Your task to perform on an android device: turn off location Image 0: 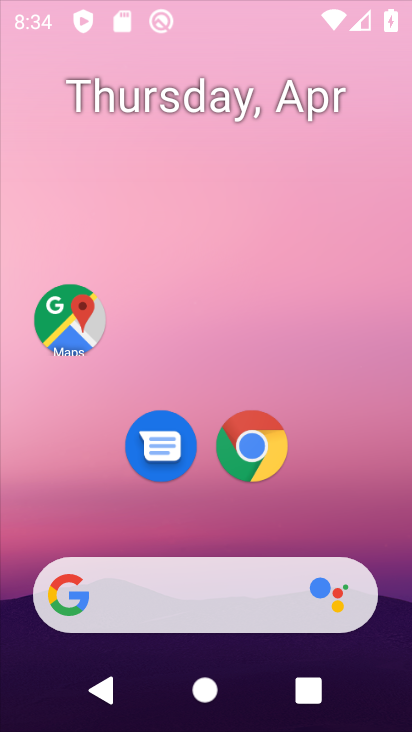
Step 0: press home button
Your task to perform on an android device: turn off location Image 1: 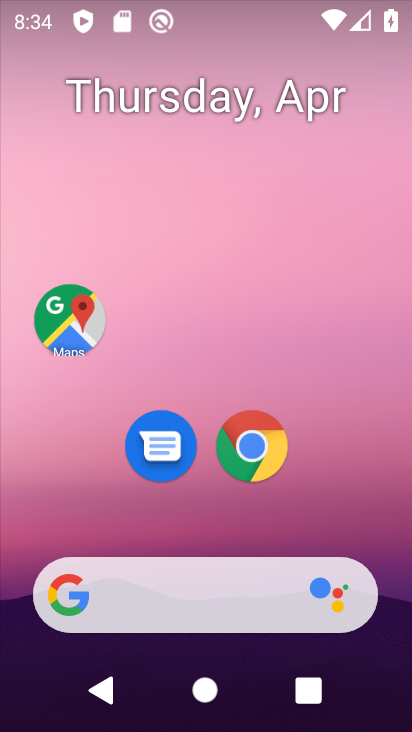
Step 1: drag from (357, 509) to (338, 124)
Your task to perform on an android device: turn off location Image 2: 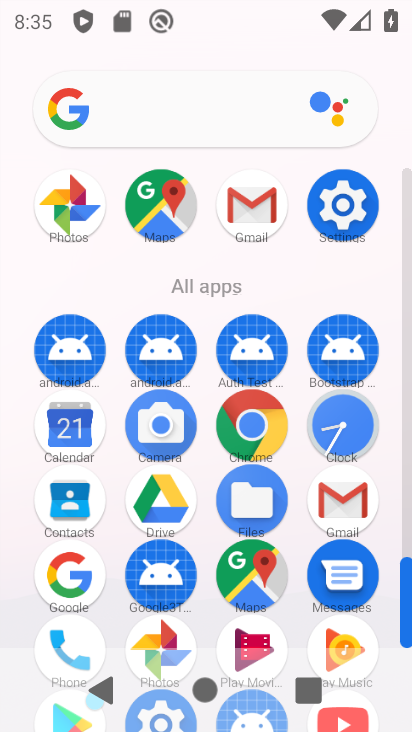
Step 2: click (348, 206)
Your task to perform on an android device: turn off location Image 3: 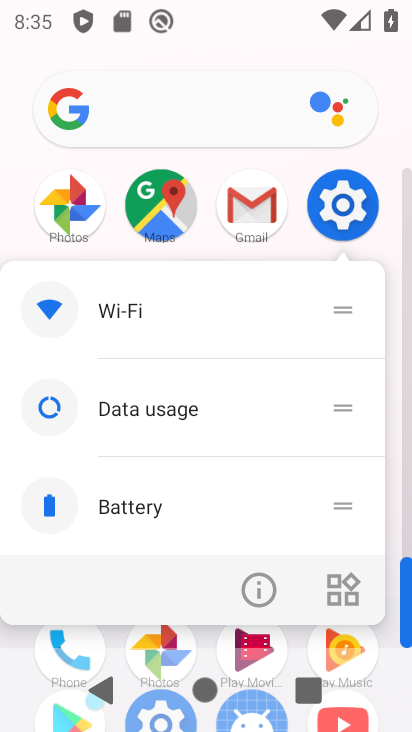
Step 3: click (355, 195)
Your task to perform on an android device: turn off location Image 4: 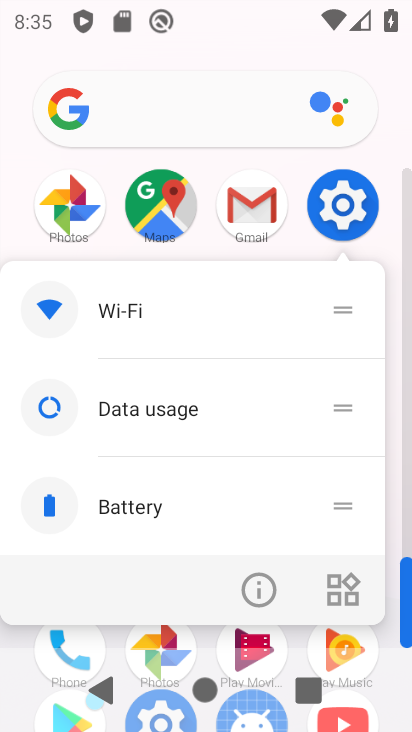
Step 4: click (324, 207)
Your task to perform on an android device: turn off location Image 5: 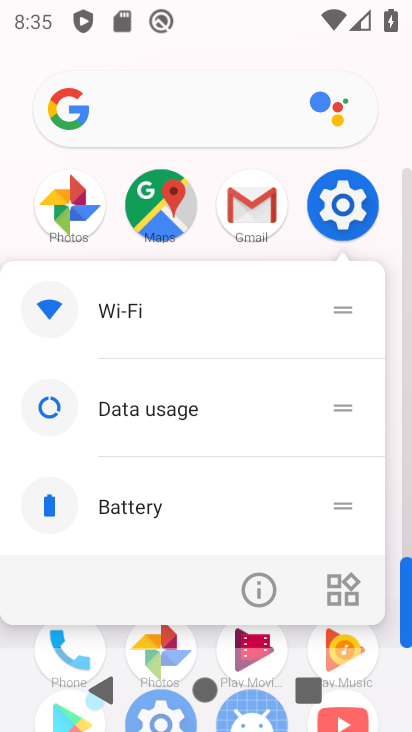
Step 5: click (345, 218)
Your task to perform on an android device: turn off location Image 6: 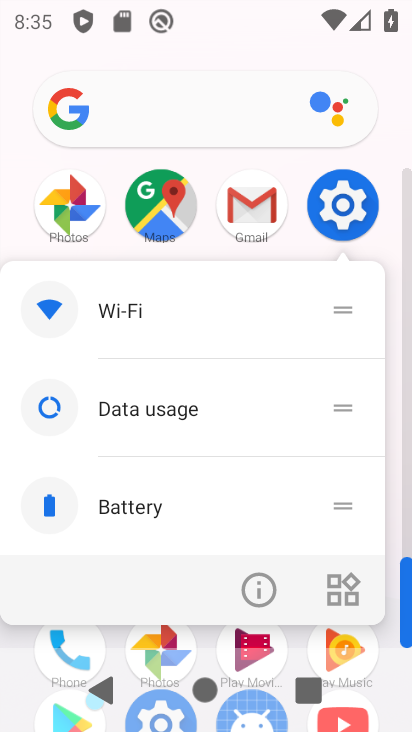
Step 6: click (365, 197)
Your task to perform on an android device: turn off location Image 7: 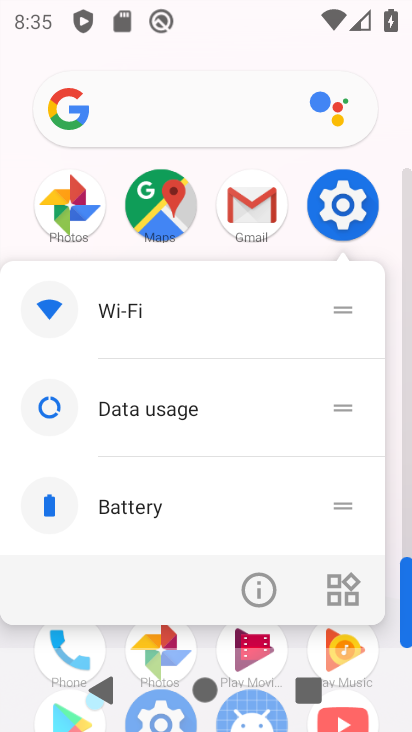
Step 7: click (316, 198)
Your task to perform on an android device: turn off location Image 8: 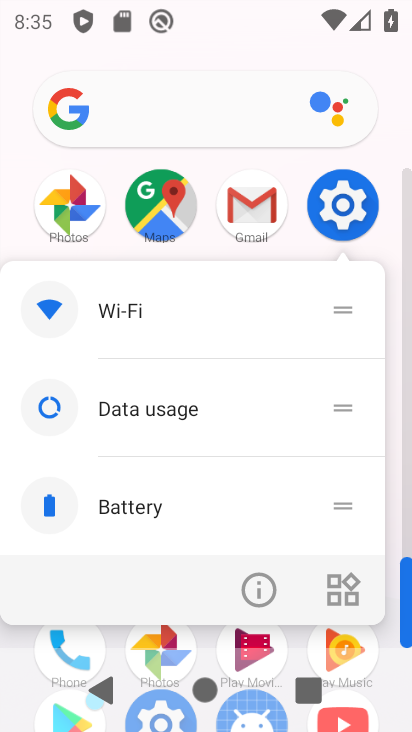
Step 8: click (360, 217)
Your task to perform on an android device: turn off location Image 9: 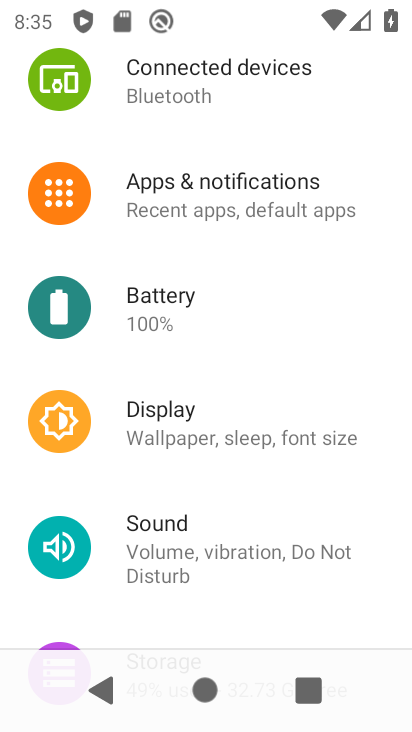
Step 9: drag from (374, 337) to (378, 499)
Your task to perform on an android device: turn off location Image 10: 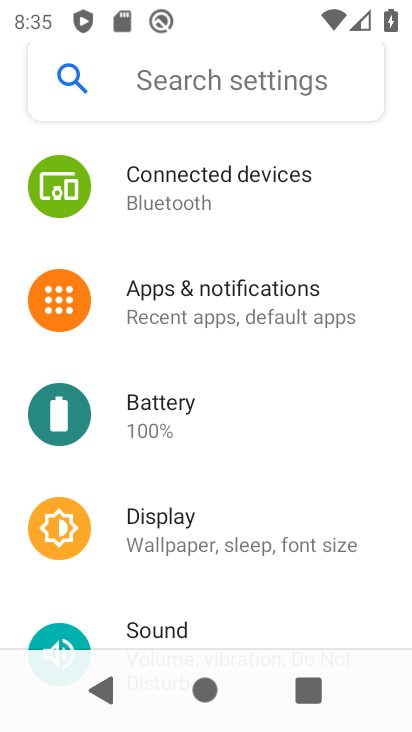
Step 10: drag from (383, 240) to (369, 460)
Your task to perform on an android device: turn off location Image 11: 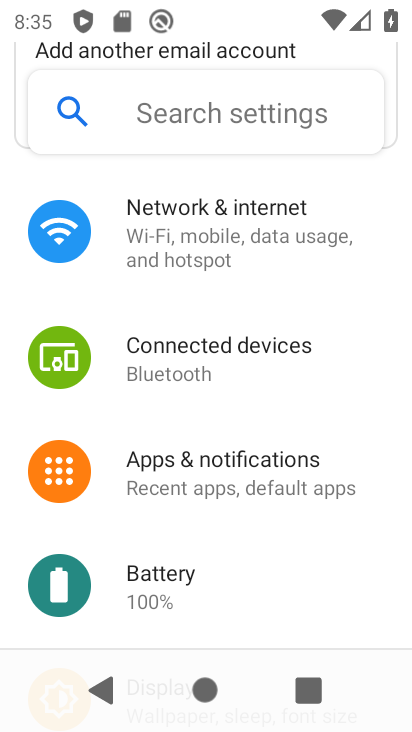
Step 11: drag from (365, 547) to (385, 346)
Your task to perform on an android device: turn off location Image 12: 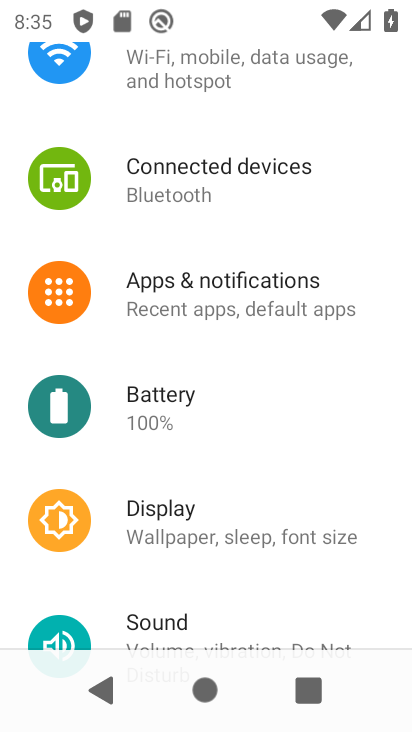
Step 12: drag from (357, 572) to (388, 330)
Your task to perform on an android device: turn off location Image 13: 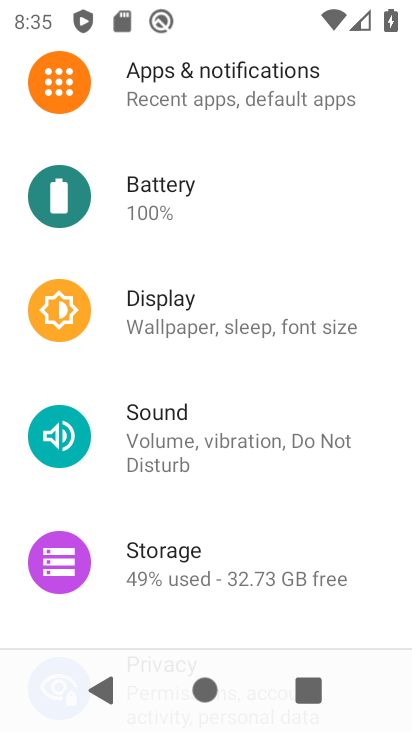
Step 13: drag from (364, 579) to (366, 378)
Your task to perform on an android device: turn off location Image 14: 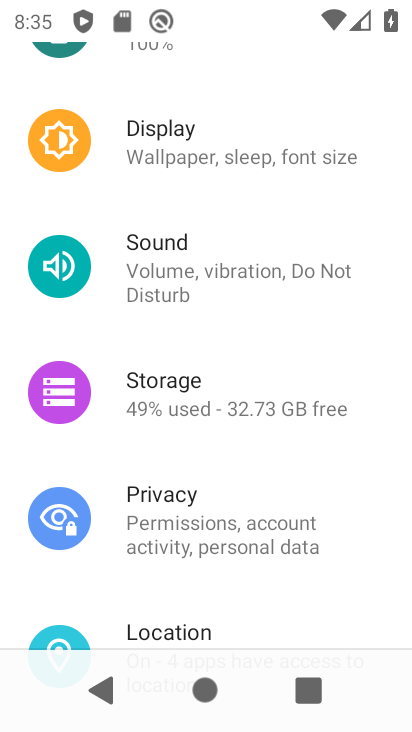
Step 14: drag from (349, 610) to (362, 353)
Your task to perform on an android device: turn off location Image 15: 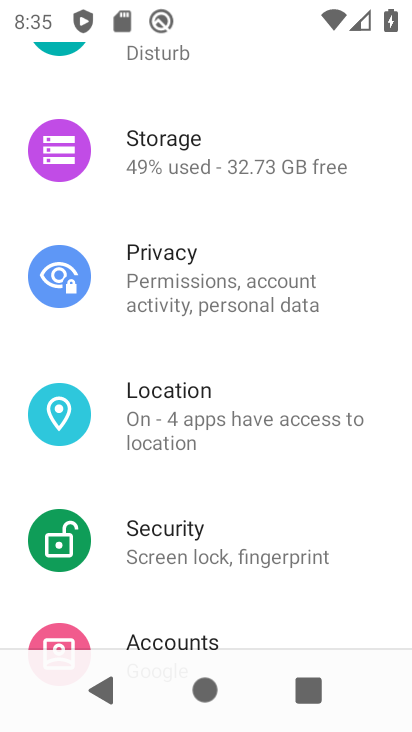
Step 15: click (321, 405)
Your task to perform on an android device: turn off location Image 16: 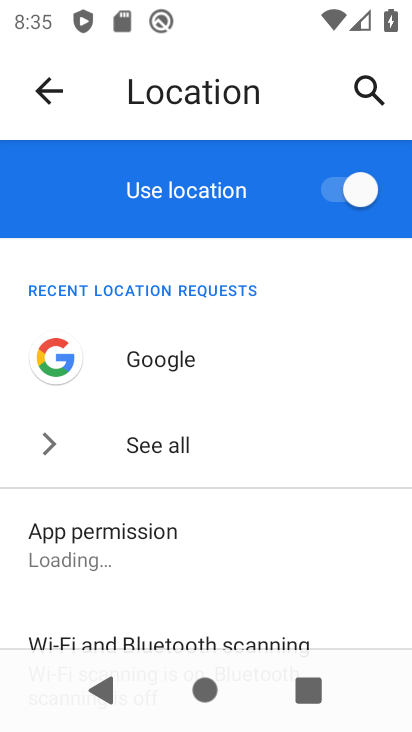
Step 16: click (345, 195)
Your task to perform on an android device: turn off location Image 17: 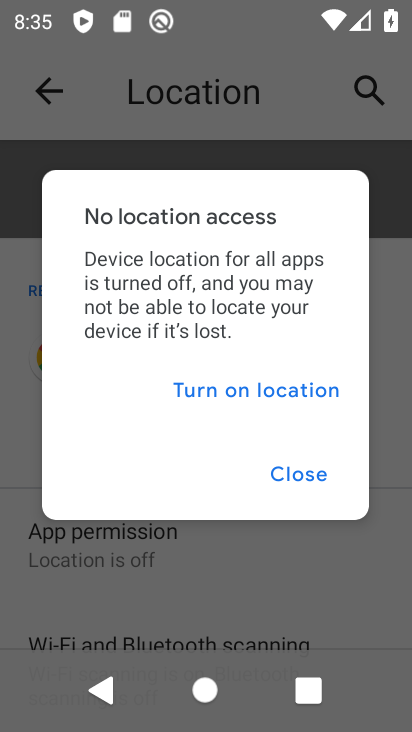
Step 17: task complete